Your task to perform on an android device: Is it going to rain today? Image 0: 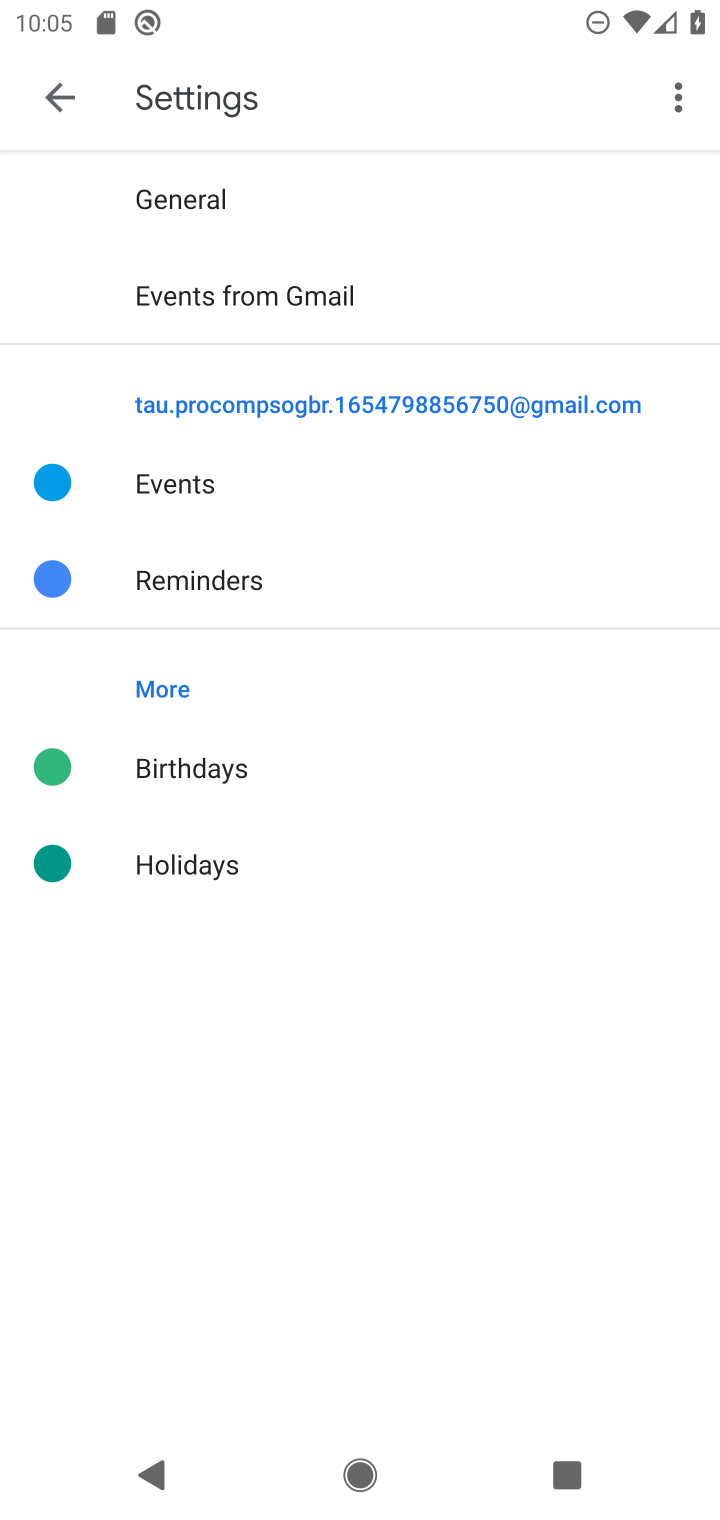
Step 0: press home button
Your task to perform on an android device: Is it going to rain today? Image 1: 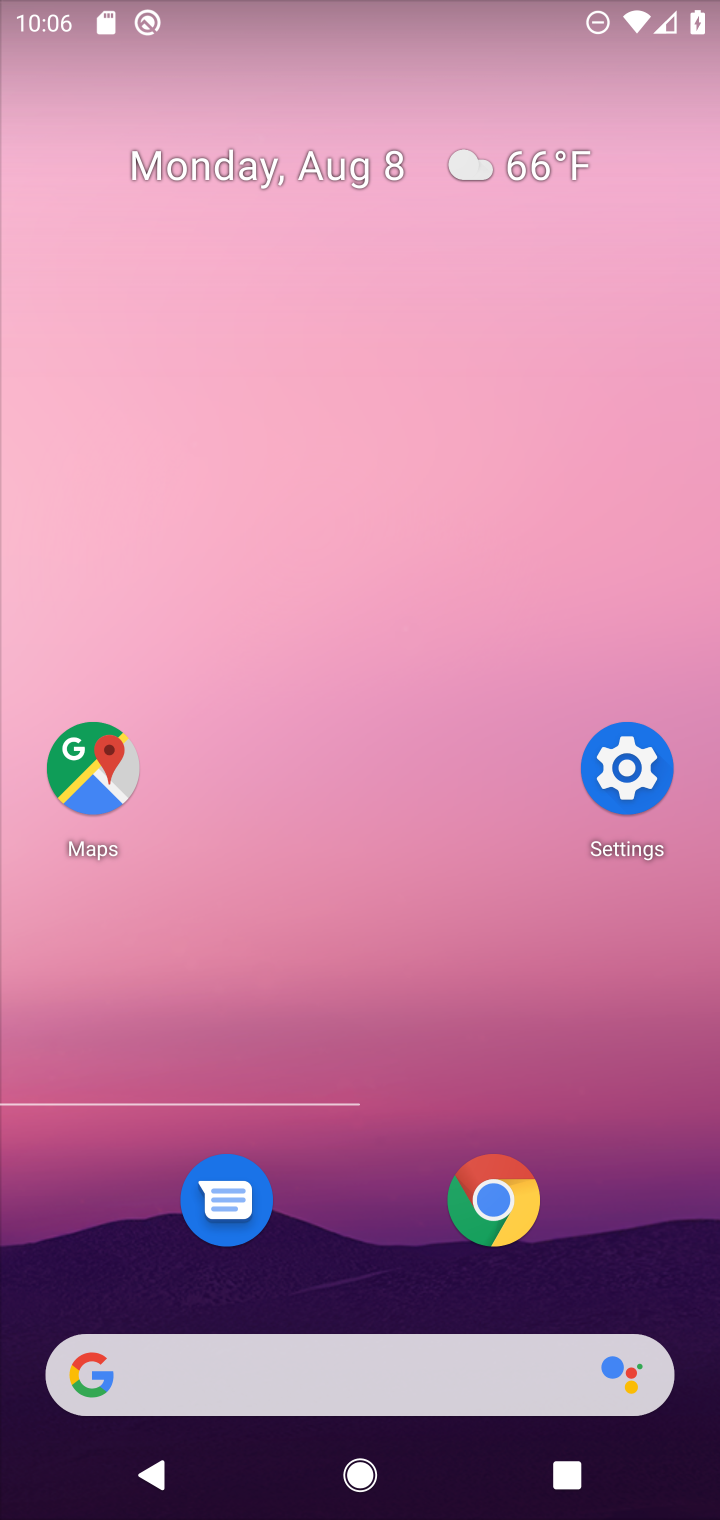
Step 1: click (291, 1351)
Your task to perform on an android device: Is it going to rain today? Image 2: 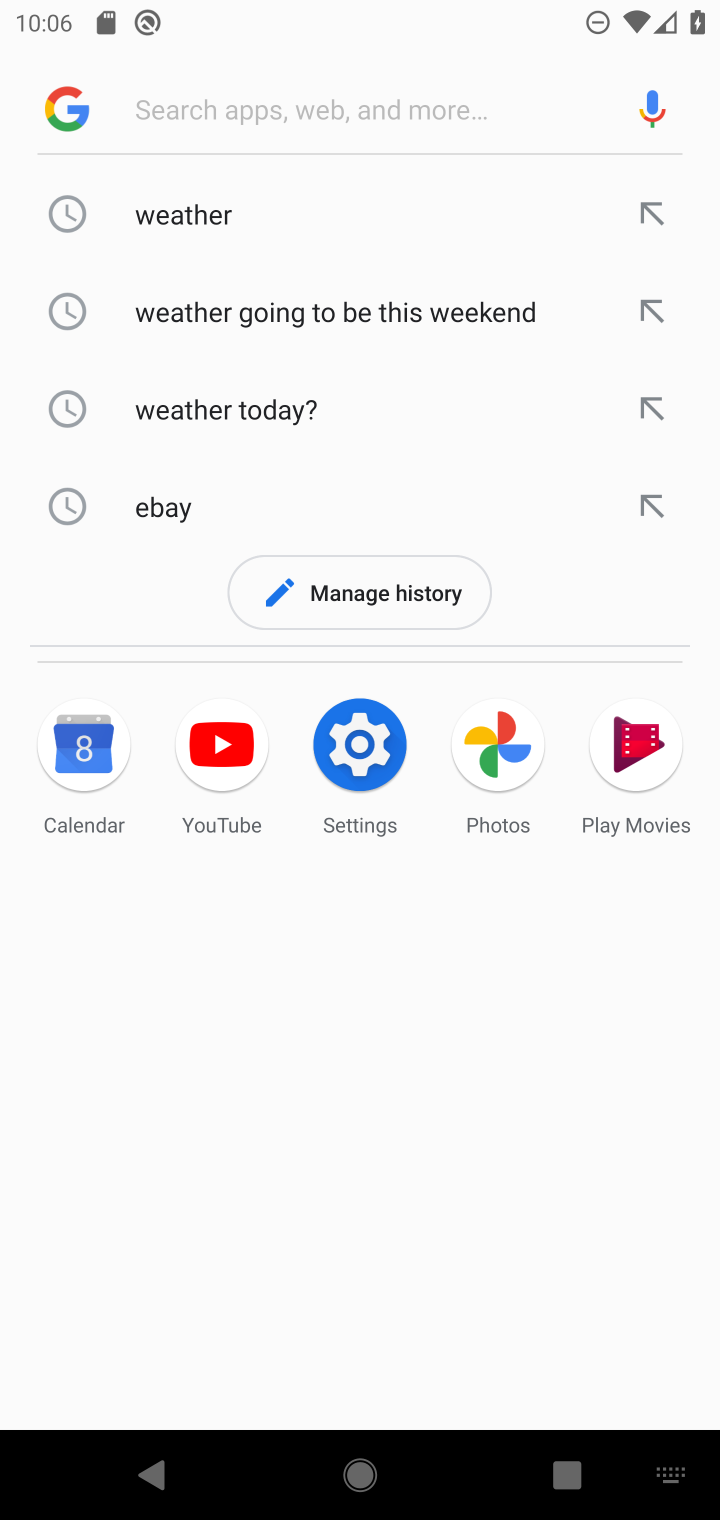
Step 2: click (237, 212)
Your task to perform on an android device: Is it going to rain today? Image 3: 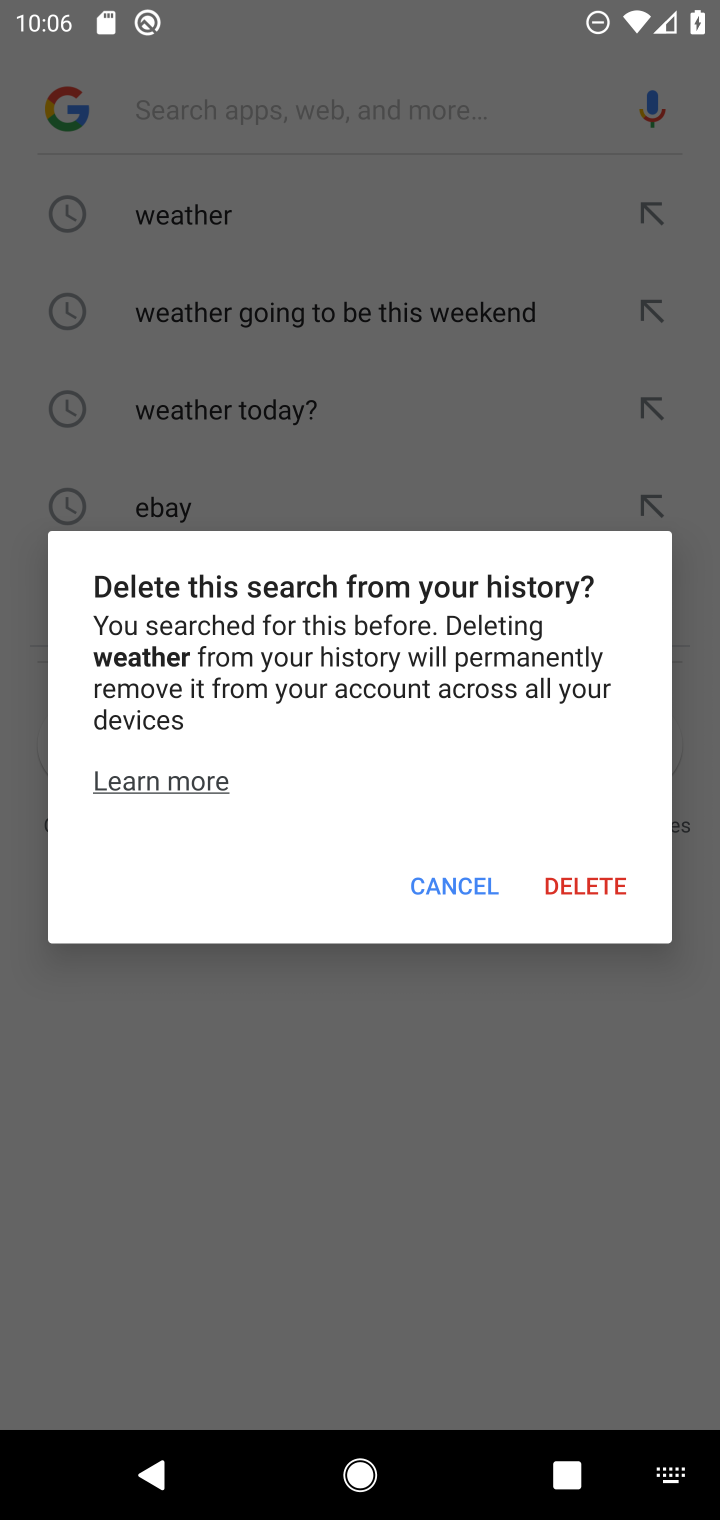
Step 3: click (481, 879)
Your task to perform on an android device: Is it going to rain today? Image 4: 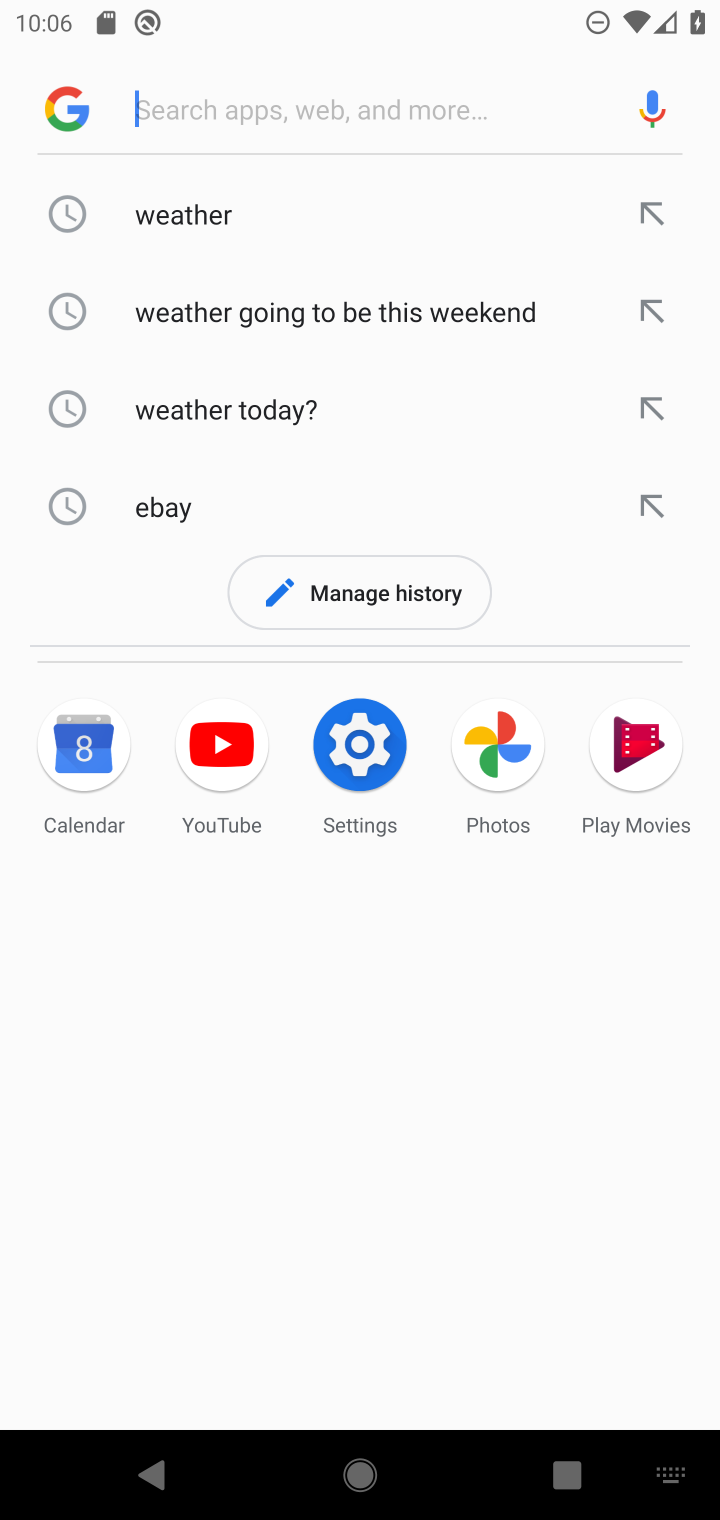
Step 4: click (651, 195)
Your task to perform on an android device: Is it going to rain today? Image 5: 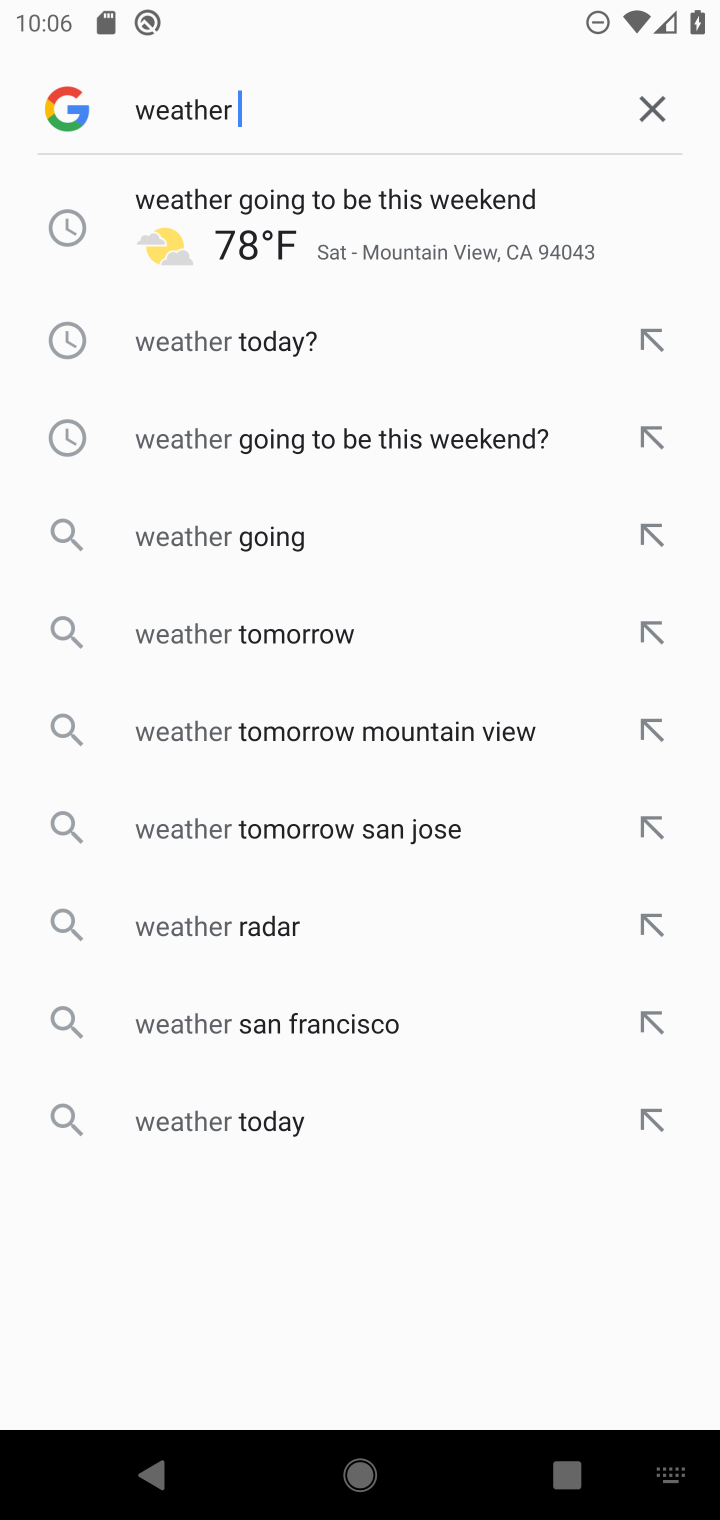
Step 5: click (277, 334)
Your task to perform on an android device: Is it going to rain today? Image 6: 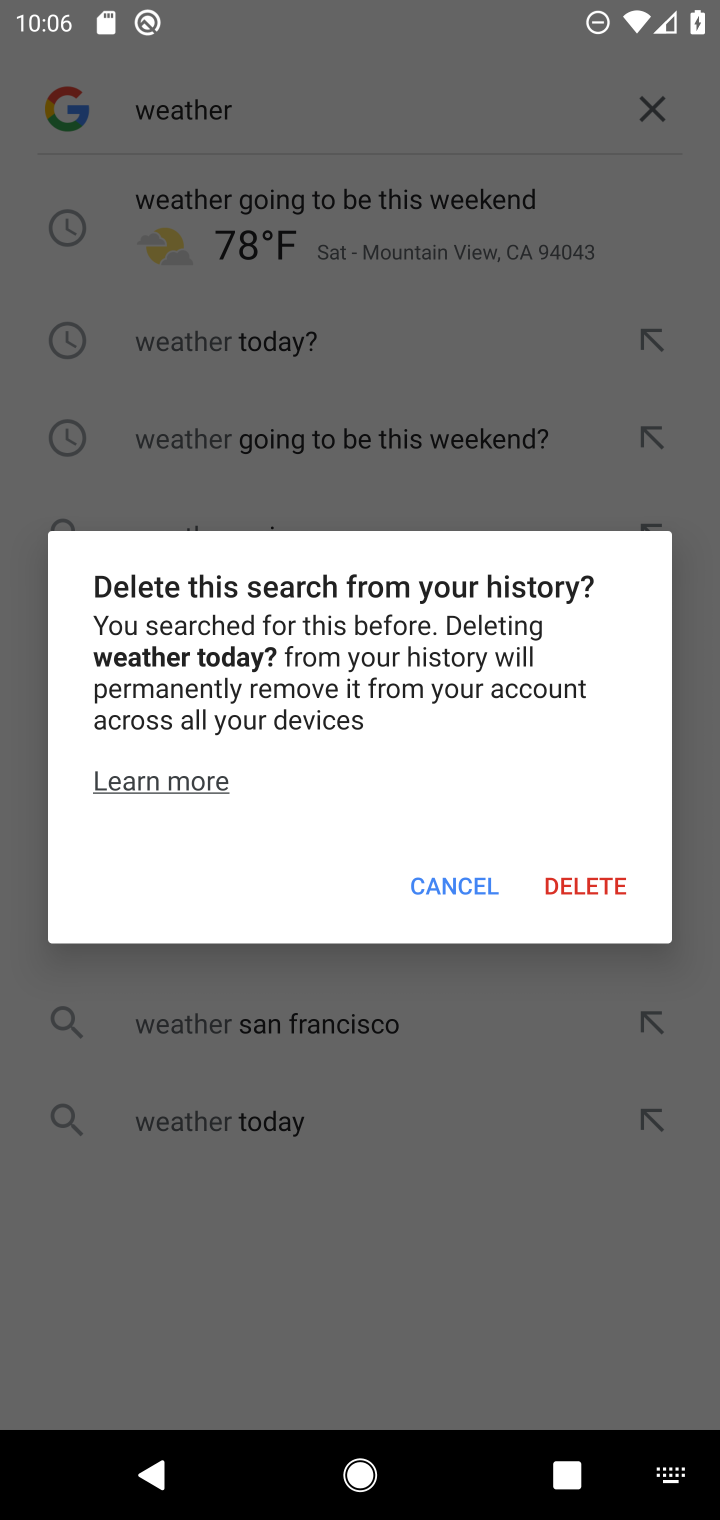
Step 6: click (470, 881)
Your task to perform on an android device: Is it going to rain today? Image 7: 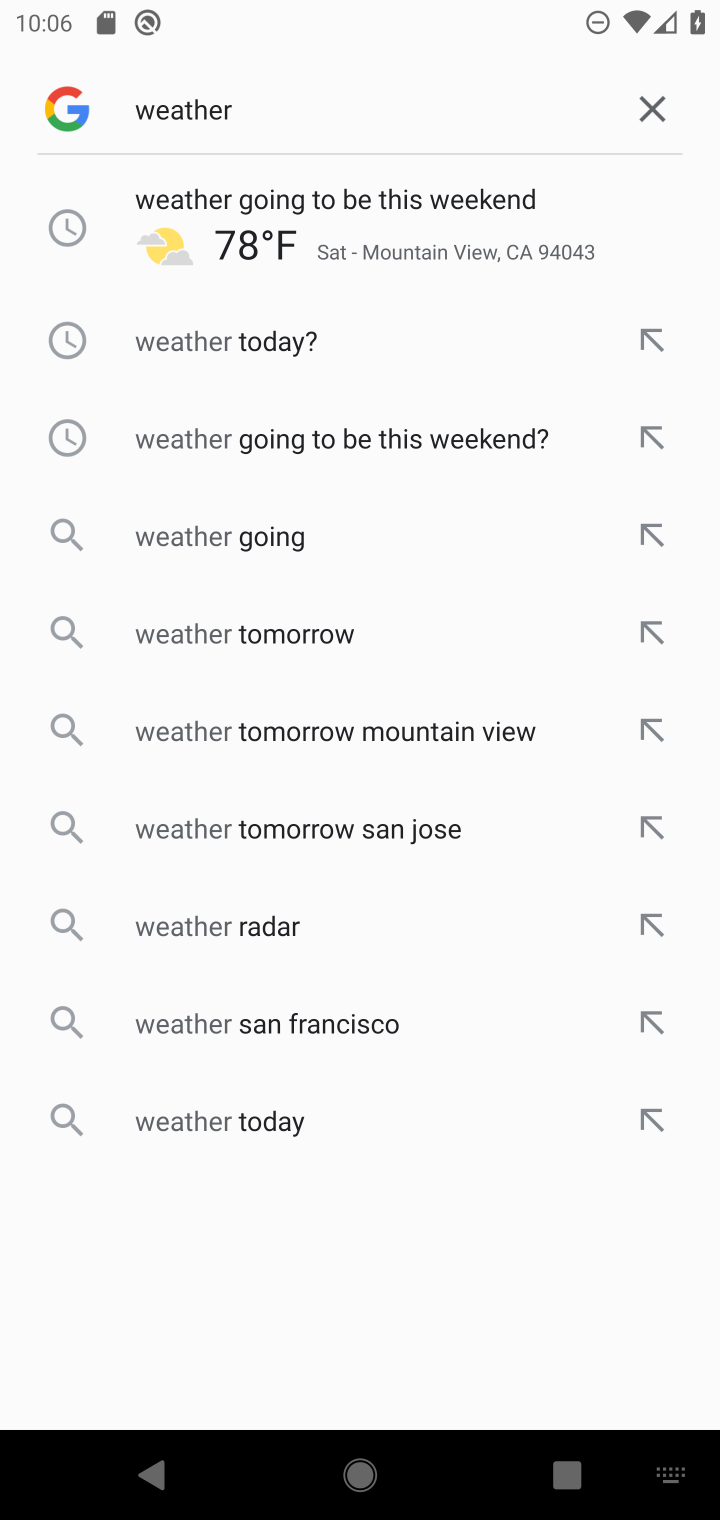
Step 7: click (292, 1111)
Your task to perform on an android device: Is it going to rain today? Image 8: 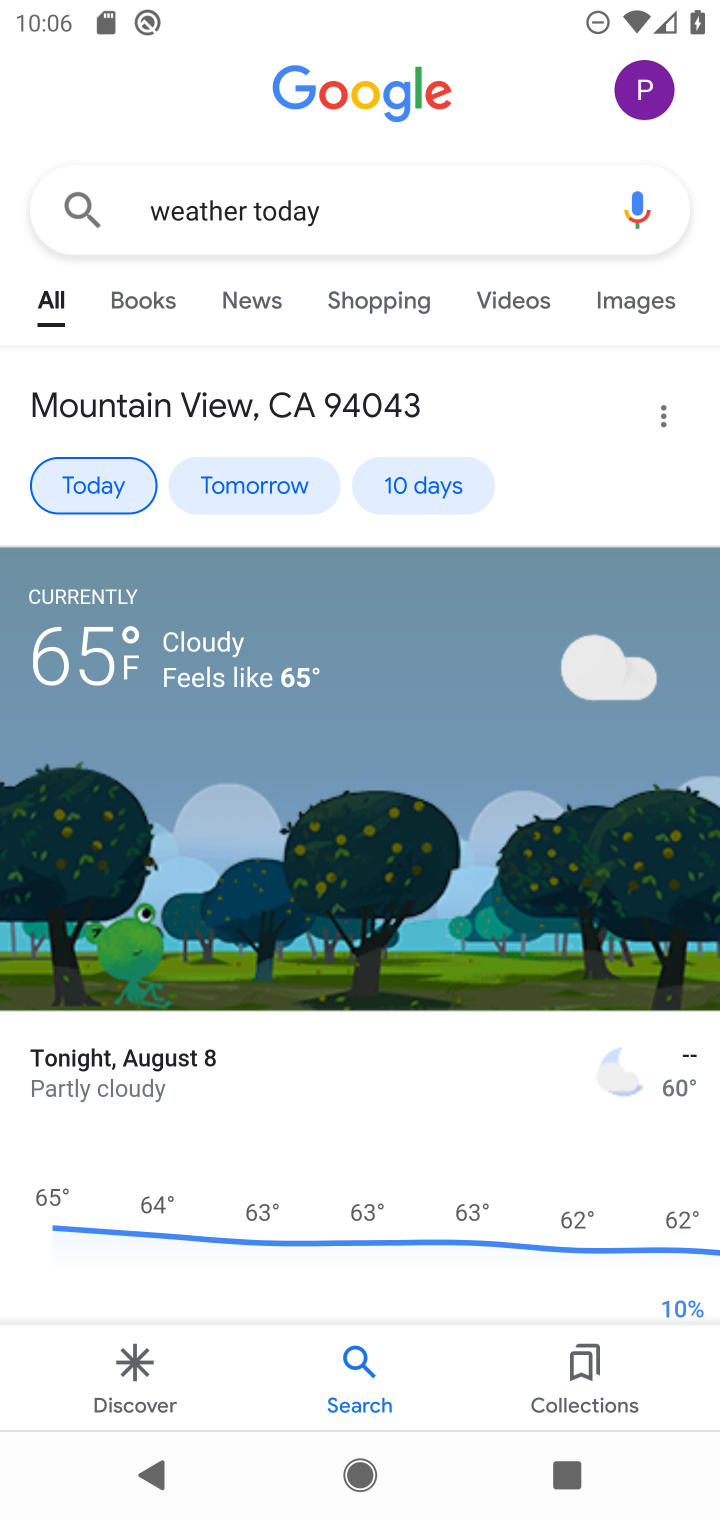
Step 8: task complete